Your task to perform on an android device: turn on priority inbox in the gmail app Image 0: 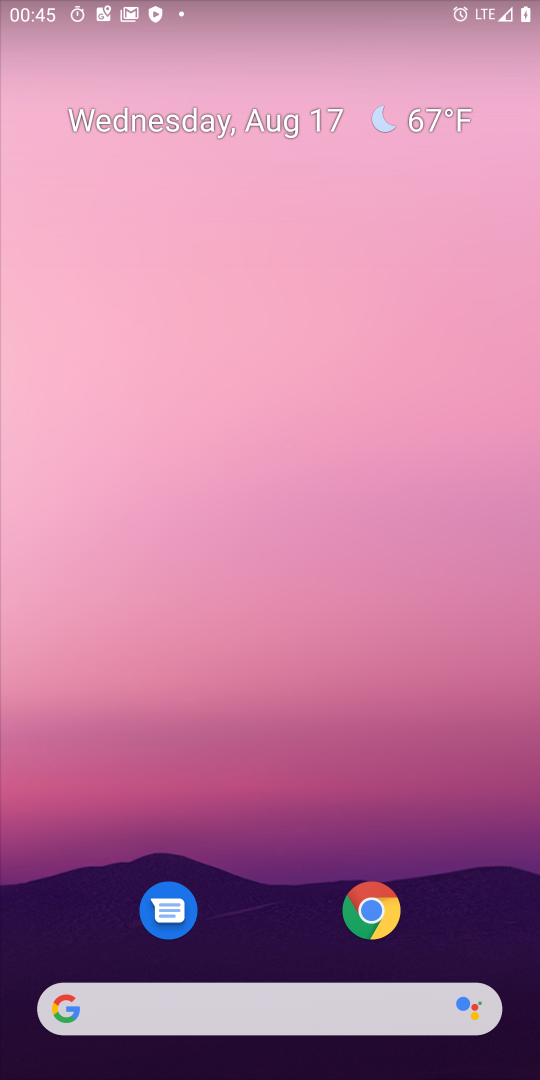
Step 0: drag from (240, 810) to (357, 194)
Your task to perform on an android device: turn on priority inbox in the gmail app Image 1: 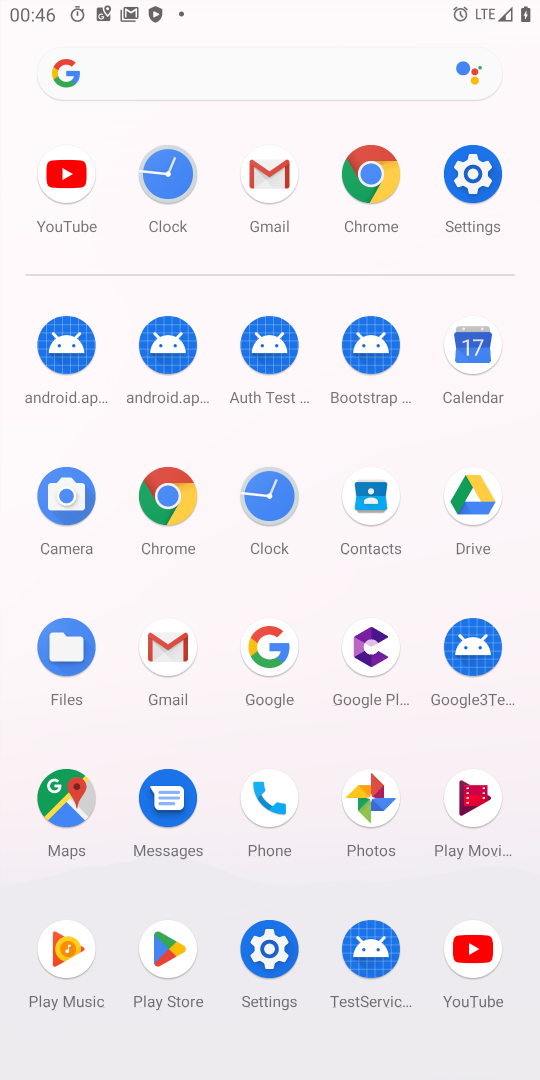
Step 1: click (178, 654)
Your task to perform on an android device: turn on priority inbox in the gmail app Image 2: 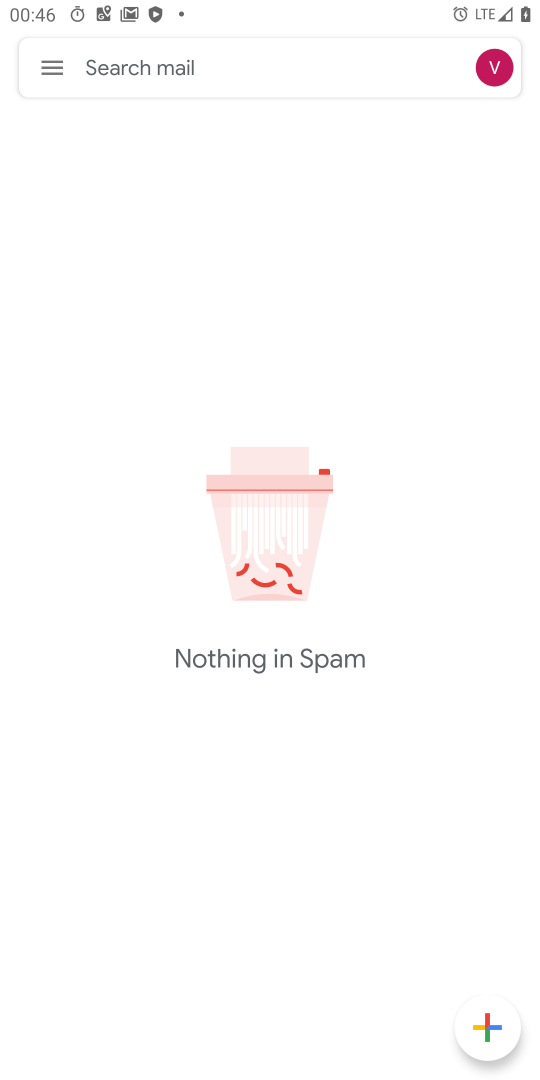
Step 2: click (54, 76)
Your task to perform on an android device: turn on priority inbox in the gmail app Image 3: 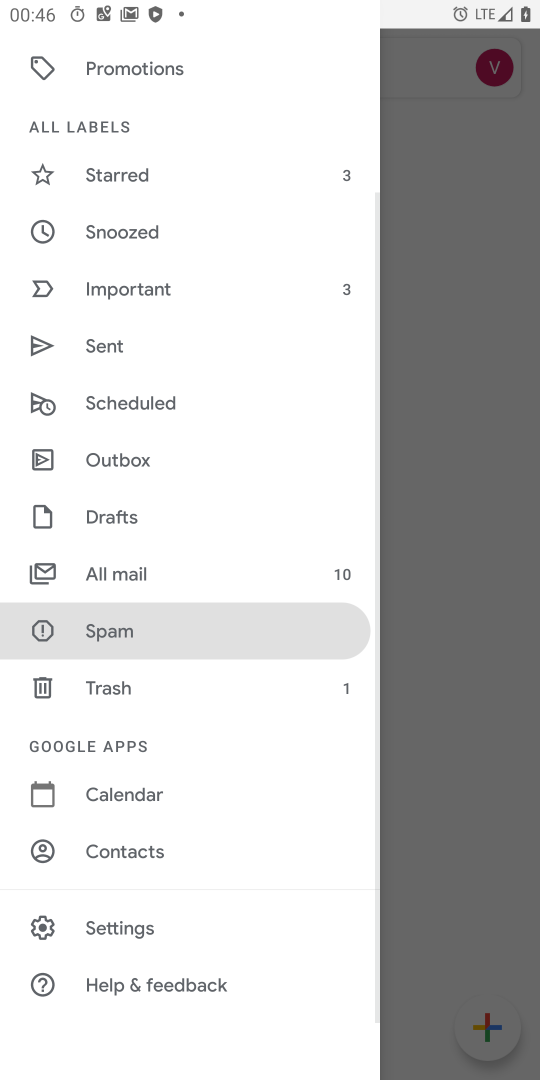
Step 3: click (136, 930)
Your task to perform on an android device: turn on priority inbox in the gmail app Image 4: 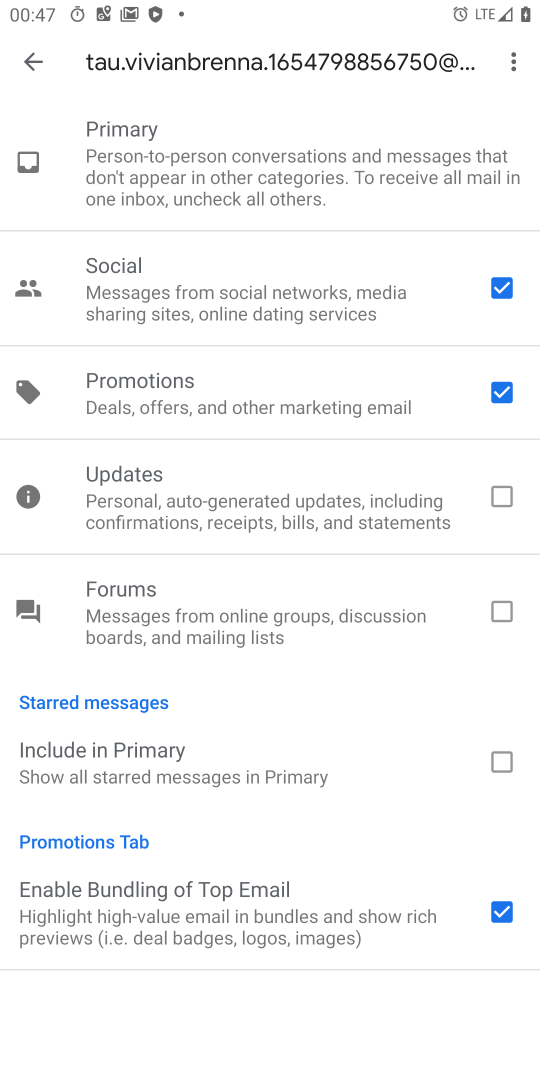
Step 4: click (32, 58)
Your task to perform on an android device: turn on priority inbox in the gmail app Image 5: 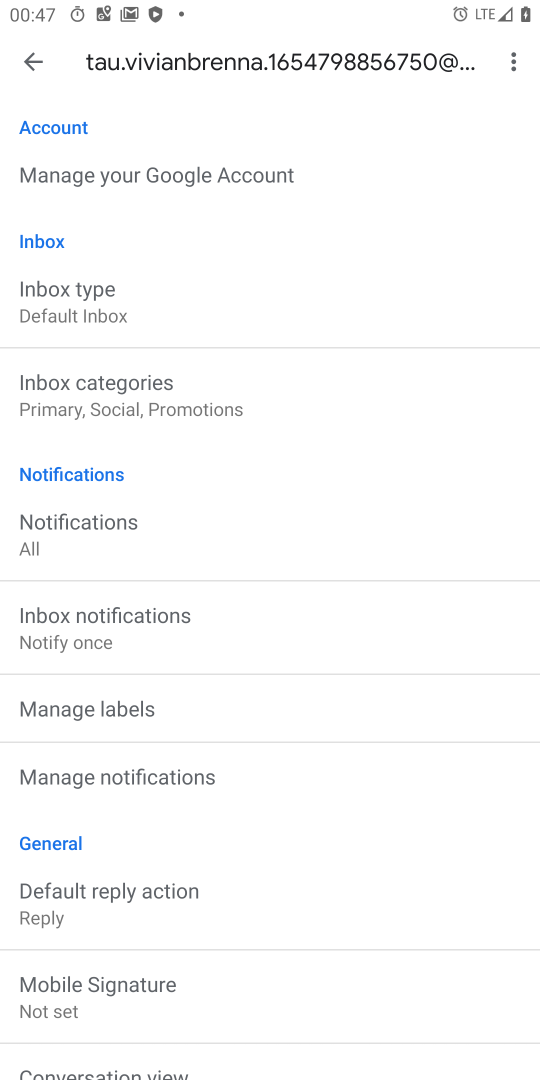
Step 5: drag from (206, 244) to (296, 1074)
Your task to perform on an android device: turn on priority inbox in the gmail app Image 6: 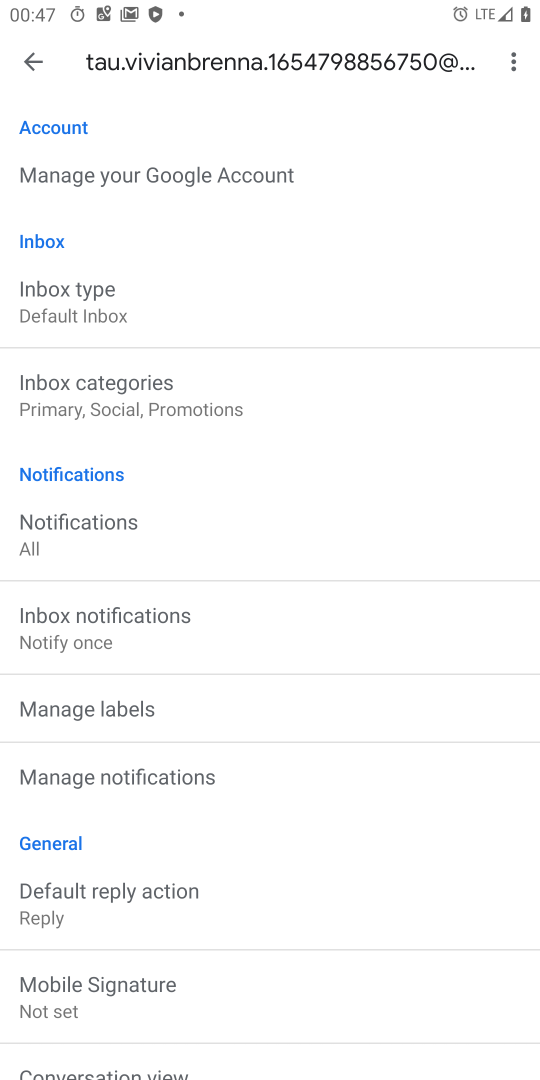
Step 6: click (100, 308)
Your task to perform on an android device: turn on priority inbox in the gmail app Image 7: 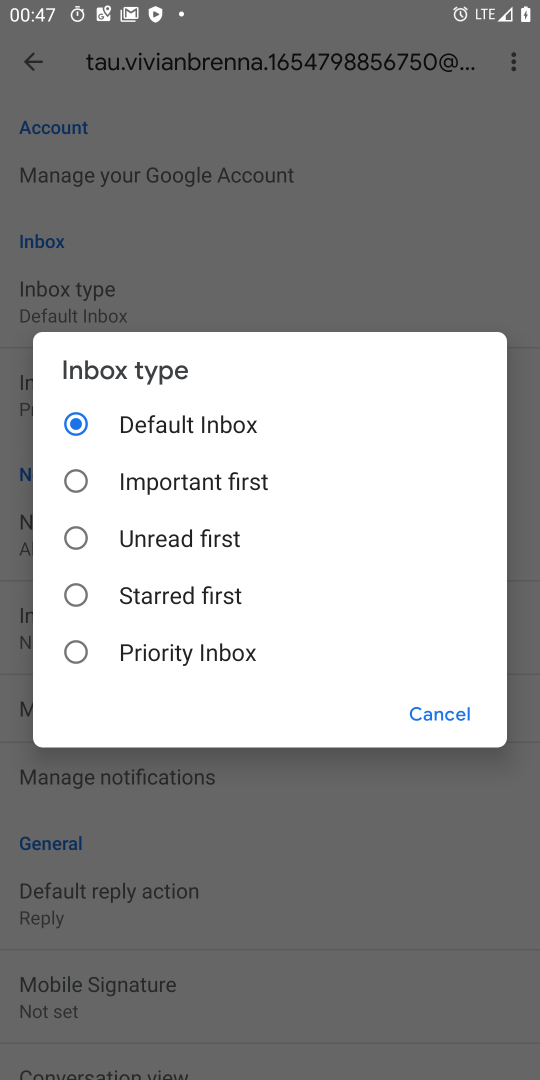
Step 7: task complete